Your task to perform on an android device: search for starred emails in the gmail app Image 0: 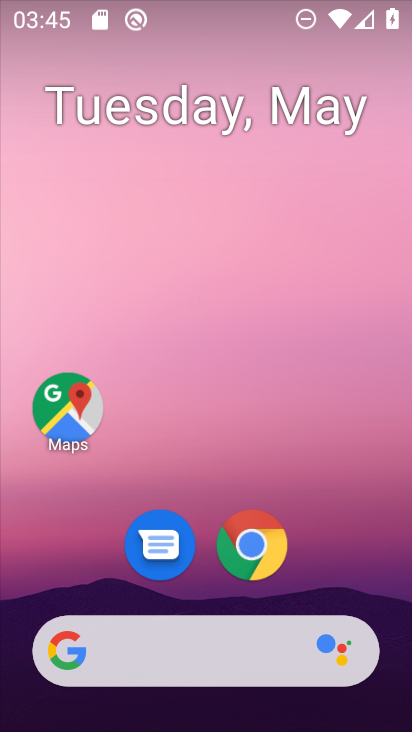
Step 0: drag from (370, 598) to (312, 152)
Your task to perform on an android device: search for starred emails in the gmail app Image 1: 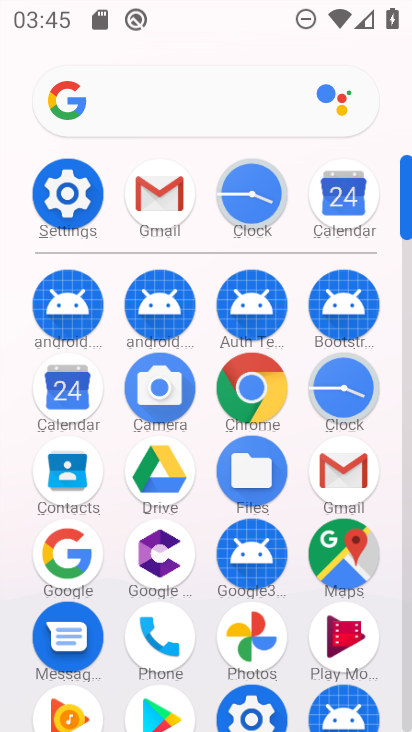
Step 1: click (346, 474)
Your task to perform on an android device: search for starred emails in the gmail app Image 2: 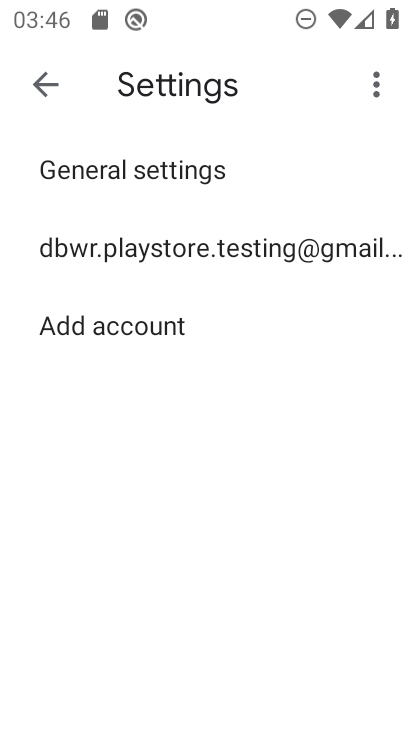
Step 2: press back button
Your task to perform on an android device: search for starred emails in the gmail app Image 3: 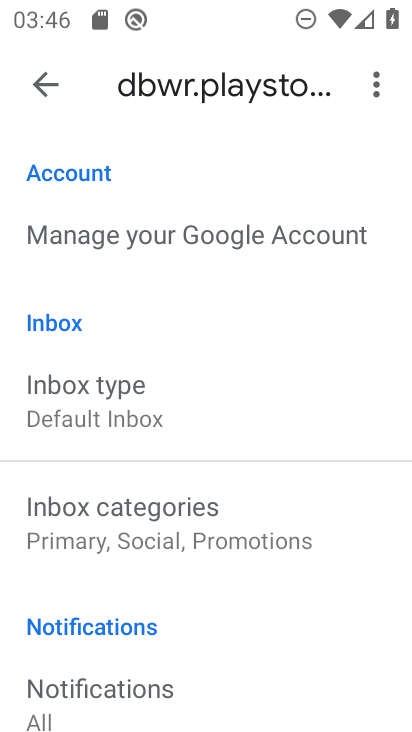
Step 3: press back button
Your task to perform on an android device: search for starred emails in the gmail app Image 4: 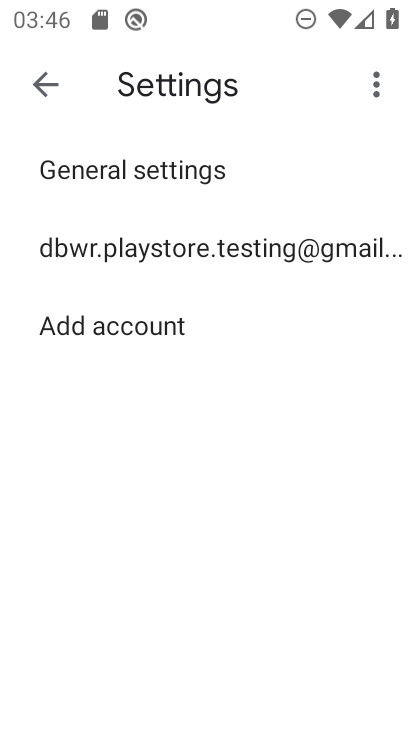
Step 4: press back button
Your task to perform on an android device: search for starred emails in the gmail app Image 5: 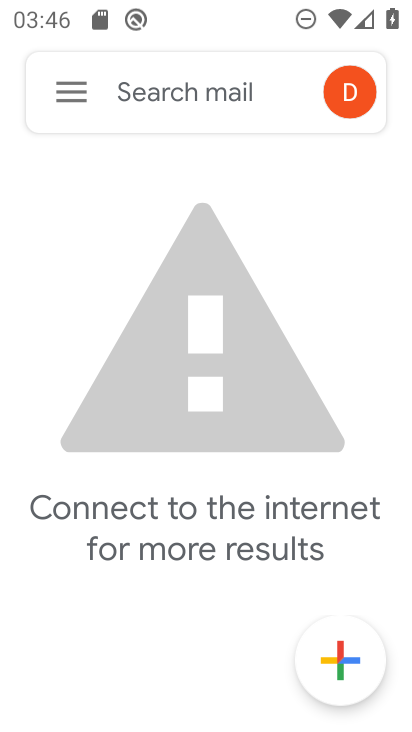
Step 5: click (63, 94)
Your task to perform on an android device: search for starred emails in the gmail app Image 6: 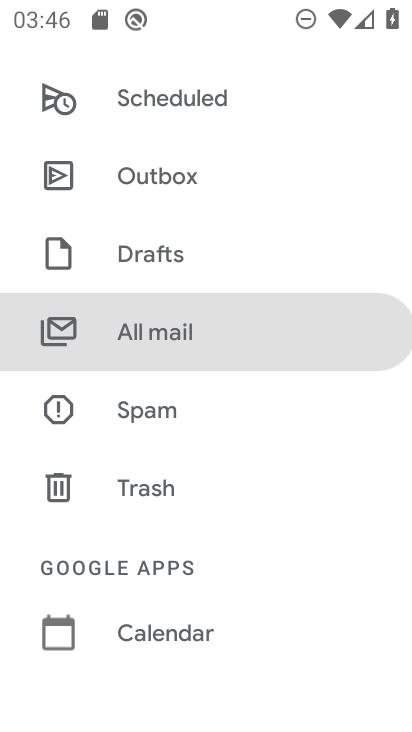
Step 6: drag from (249, 212) to (269, 556)
Your task to perform on an android device: search for starred emails in the gmail app Image 7: 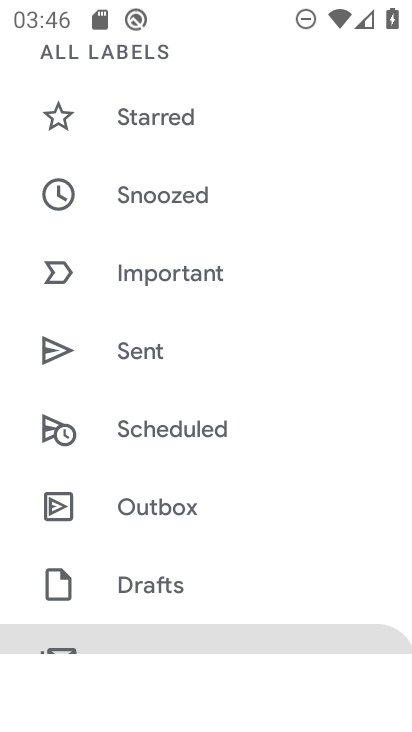
Step 7: click (140, 118)
Your task to perform on an android device: search for starred emails in the gmail app Image 8: 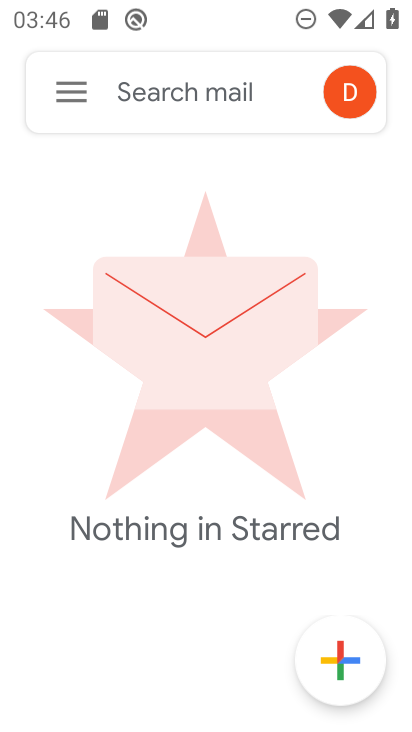
Step 8: task complete